Your task to perform on an android device: open chrome and create a bookmark for the current page Image 0: 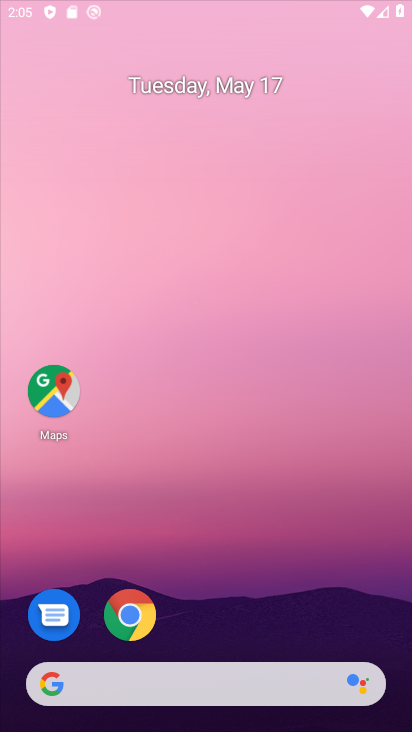
Step 0: press home button
Your task to perform on an android device: open chrome and create a bookmark for the current page Image 1: 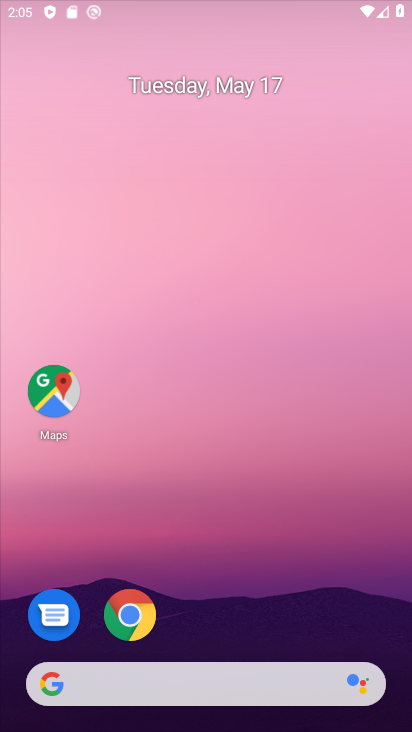
Step 1: drag from (255, 9) to (253, 549)
Your task to perform on an android device: open chrome and create a bookmark for the current page Image 2: 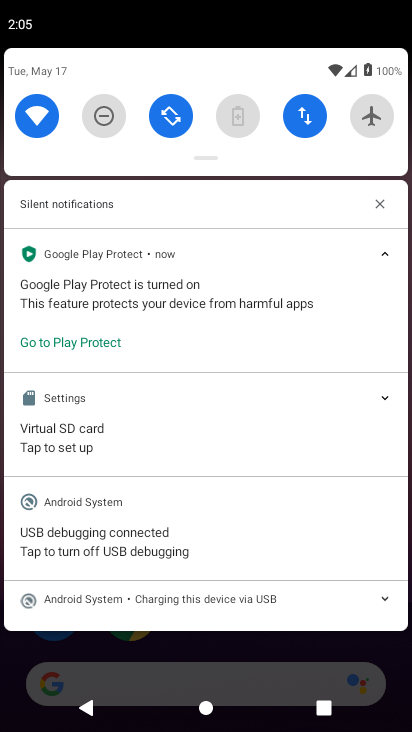
Step 2: press back button
Your task to perform on an android device: open chrome and create a bookmark for the current page Image 3: 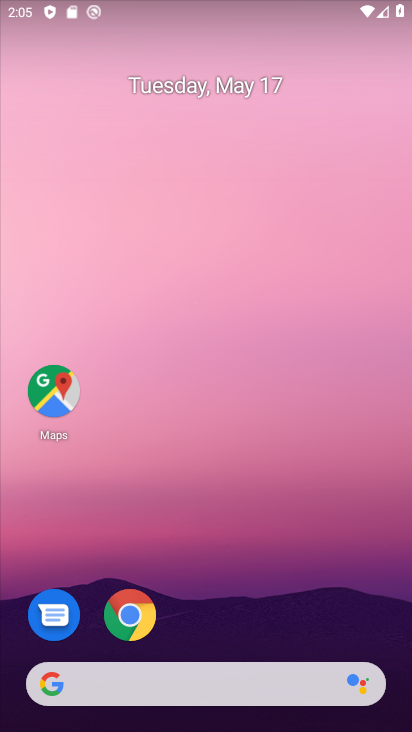
Step 3: click (129, 615)
Your task to perform on an android device: open chrome and create a bookmark for the current page Image 4: 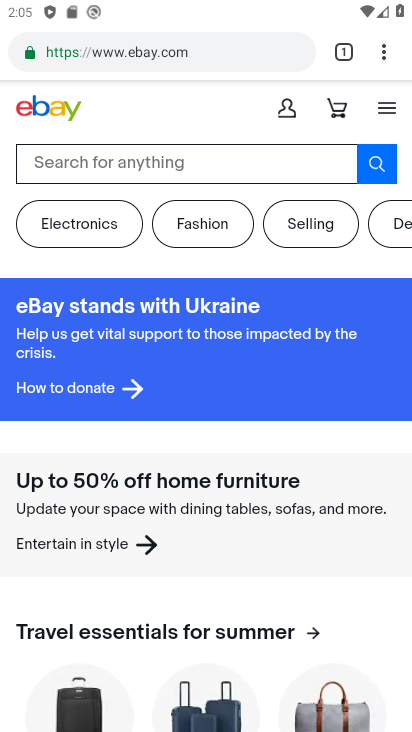
Step 4: click (386, 46)
Your task to perform on an android device: open chrome and create a bookmark for the current page Image 5: 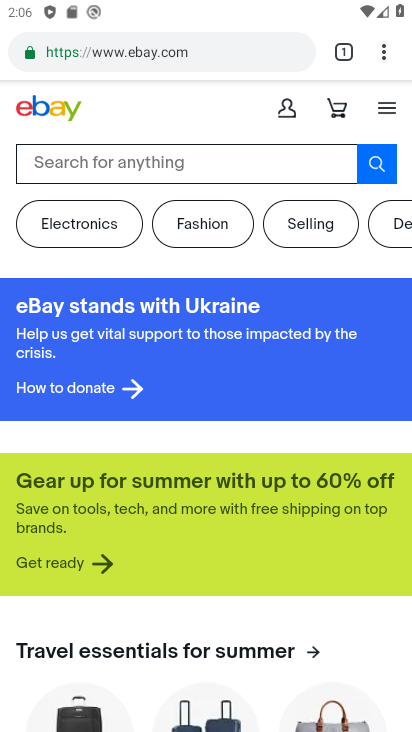
Step 5: click (381, 48)
Your task to perform on an android device: open chrome and create a bookmark for the current page Image 6: 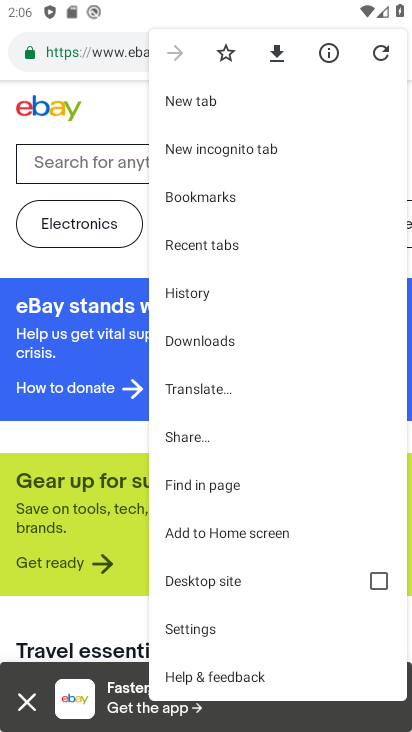
Step 6: click (223, 52)
Your task to perform on an android device: open chrome and create a bookmark for the current page Image 7: 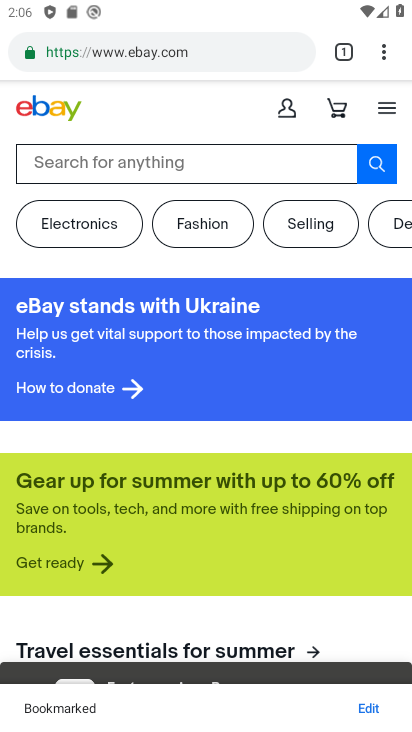
Step 7: task complete